Your task to perform on an android device: Open Wikipedia Image 0: 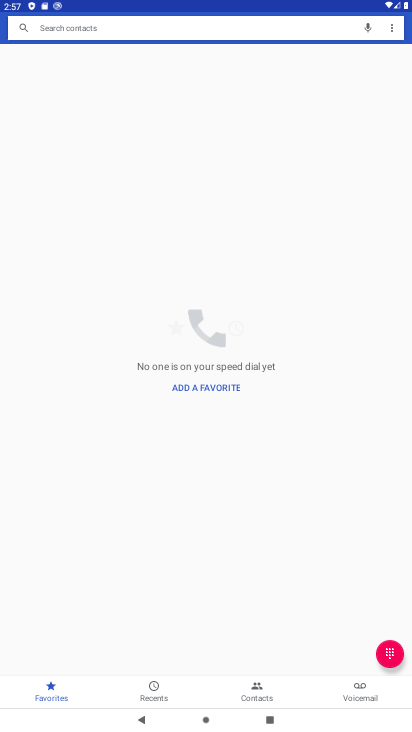
Step 0: press home button
Your task to perform on an android device: Open Wikipedia Image 1: 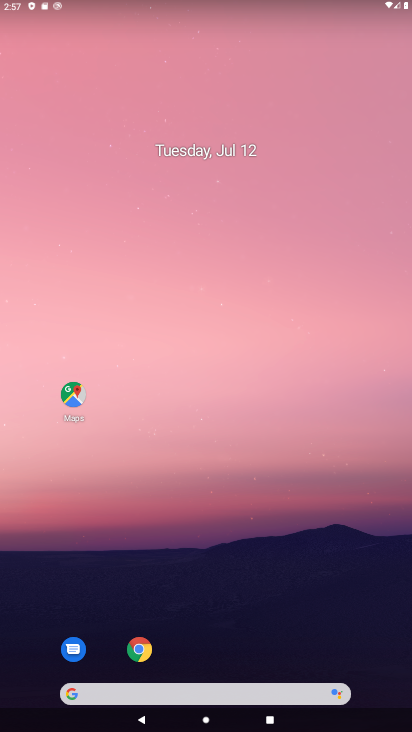
Step 1: click (144, 665)
Your task to perform on an android device: Open Wikipedia Image 2: 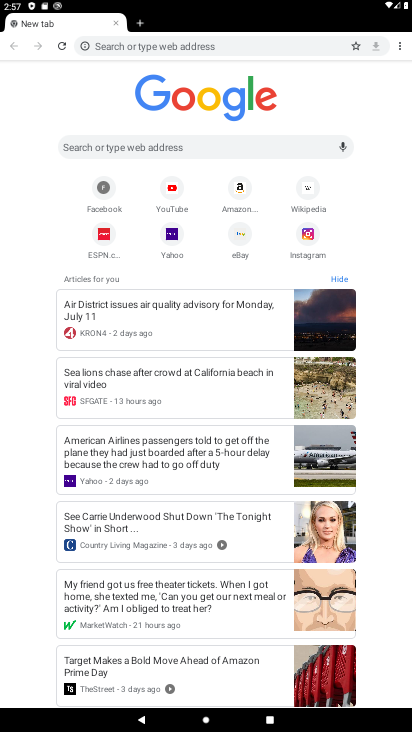
Step 2: click (305, 204)
Your task to perform on an android device: Open Wikipedia Image 3: 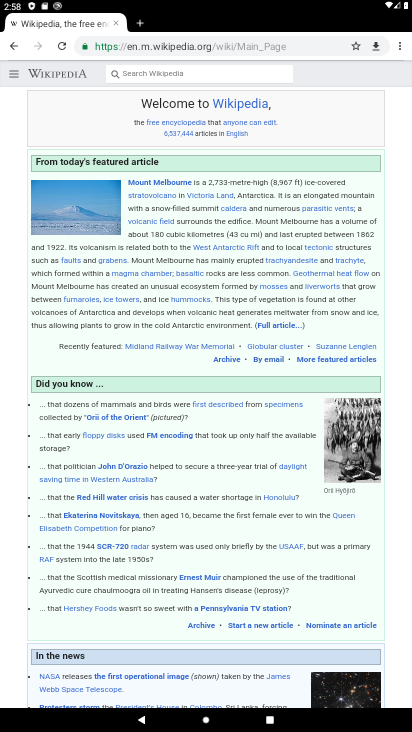
Step 3: task complete